Your task to perform on an android device: Open Reddit.com Image 0: 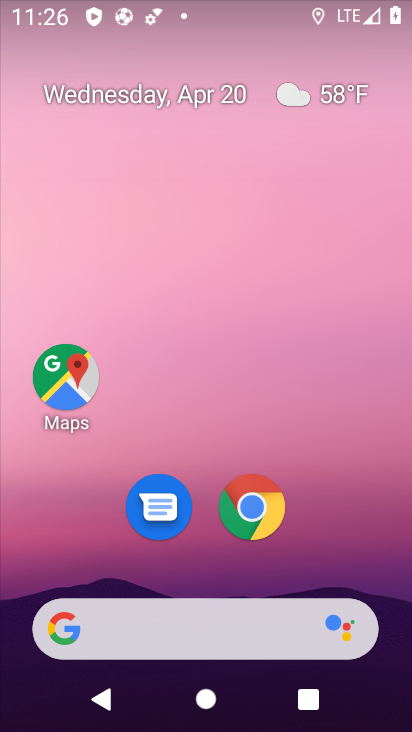
Step 0: drag from (362, 554) to (366, 110)
Your task to perform on an android device: Open Reddit.com Image 1: 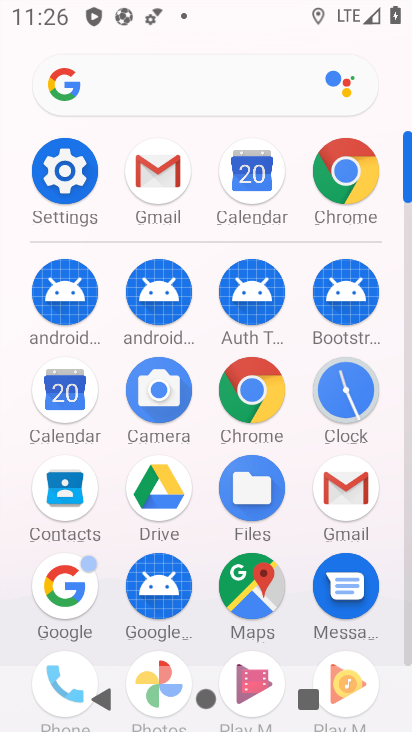
Step 1: click (234, 389)
Your task to perform on an android device: Open Reddit.com Image 2: 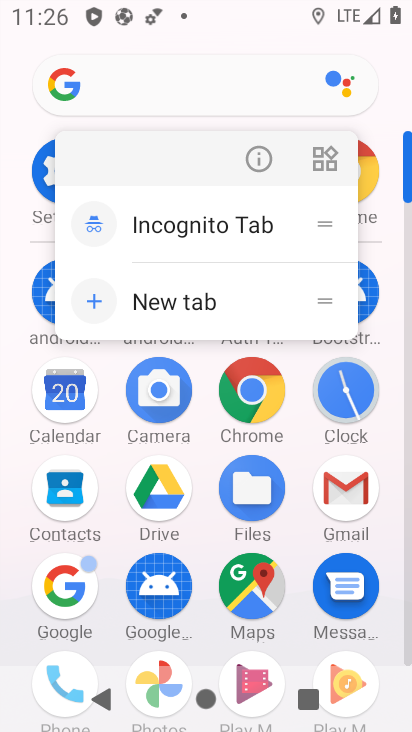
Step 2: click (280, 401)
Your task to perform on an android device: Open Reddit.com Image 3: 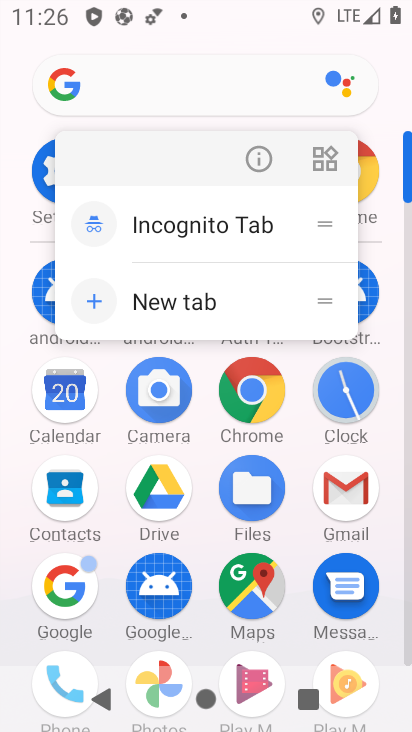
Step 3: click (249, 395)
Your task to perform on an android device: Open Reddit.com Image 4: 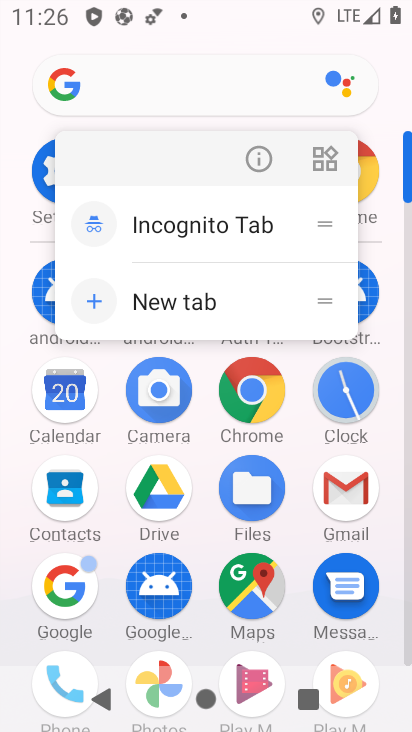
Step 4: click (243, 393)
Your task to perform on an android device: Open Reddit.com Image 5: 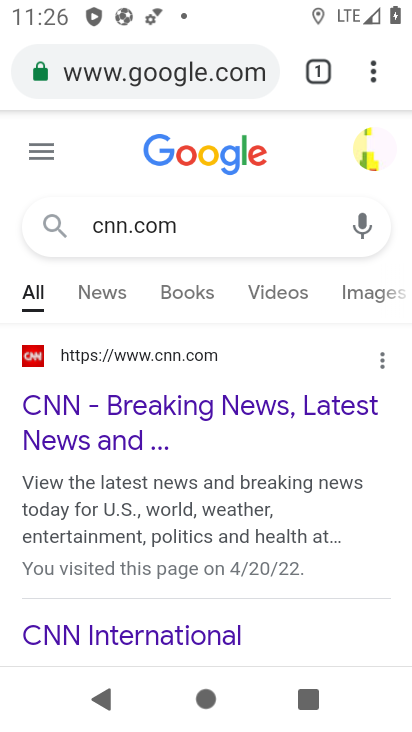
Step 5: click (230, 239)
Your task to perform on an android device: Open Reddit.com Image 6: 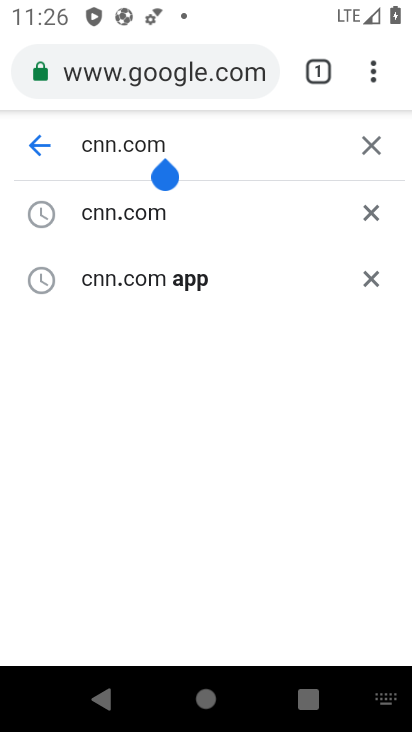
Step 6: click (367, 135)
Your task to perform on an android device: Open Reddit.com Image 7: 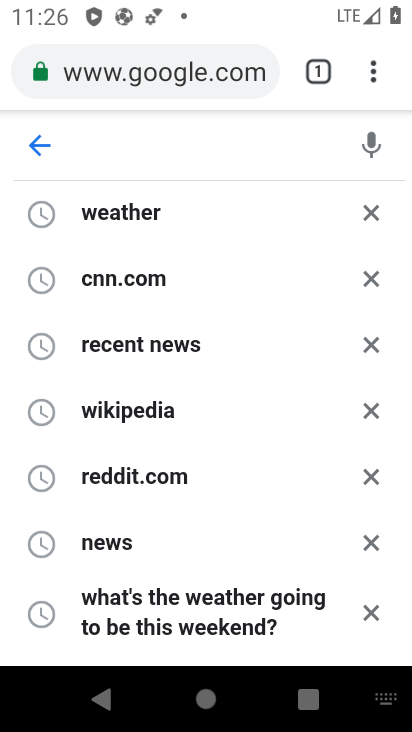
Step 7: type "reddit.com"
Your task to perform on an android device: Open Reddit.com Image 8: 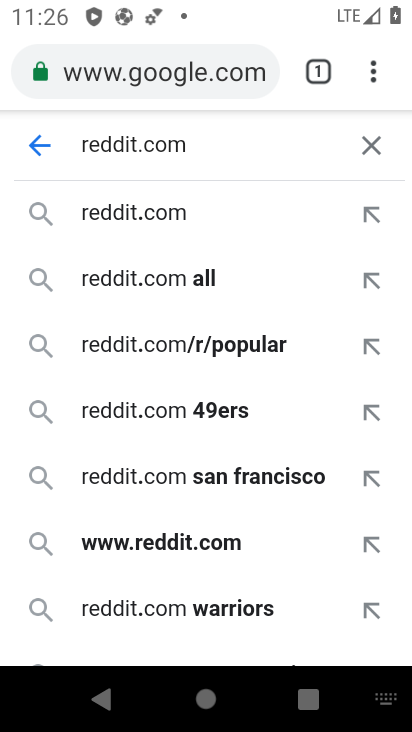
Step 8: click (158, 220)
Your task to perform on an android device: Open Reddit.com Image 9: 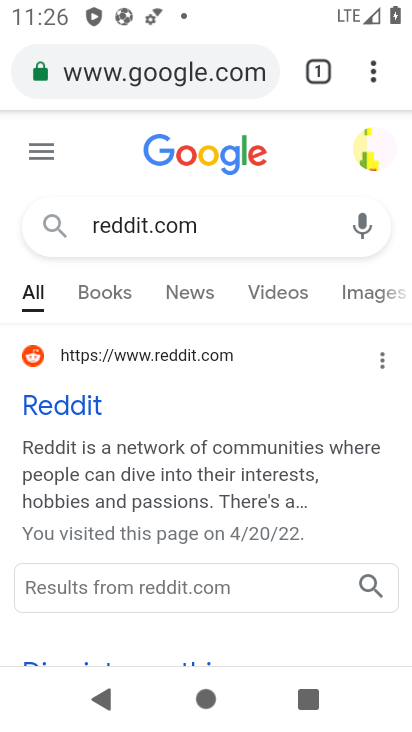
Step 9: task complete